Your task to perform on an android device: What is the recent news? Image 0: 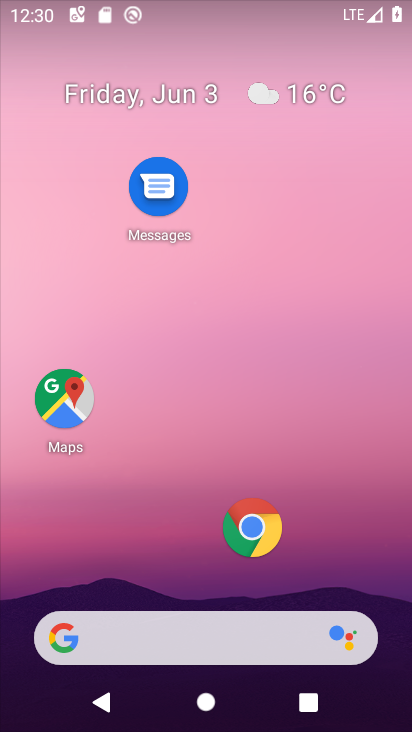
Step 0: drag from (14, 297) to (387, 275)
Your task to perform on an android device: What is the recent news? Image 1: 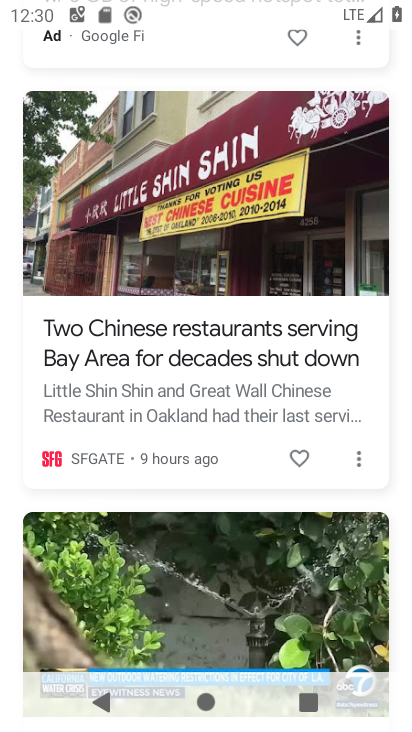
Step 1: task complete